Your task to perform on an android device: Open the Play Movies app and select the watchlist tab. Image 0: 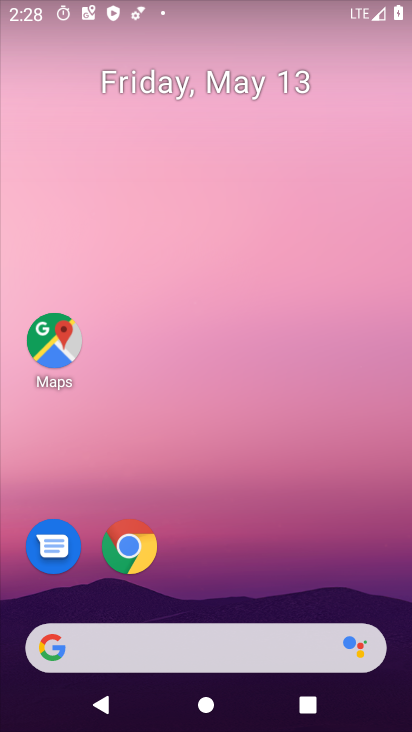
Step 0: drag from (279, 570) to (289, 3)
Your task to perform on an android device: Open the Play Movies app and select the watchlist tab. Image 1: 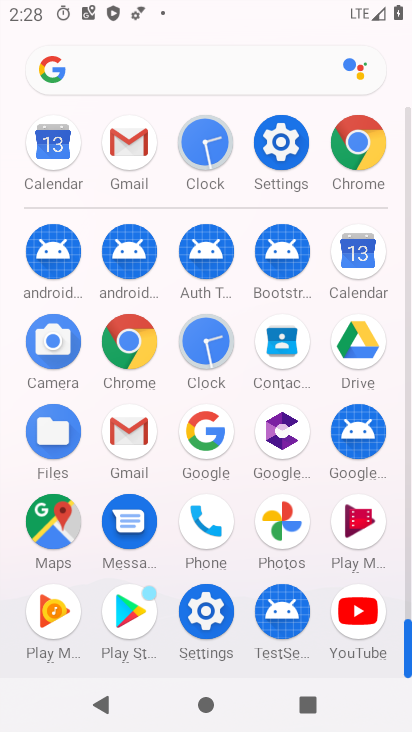
Step 1: drag from (266, 420) to (266, 233)
Your task to perform on an android device: Open the Play Movies app and select the watchlist tab. Image 2: 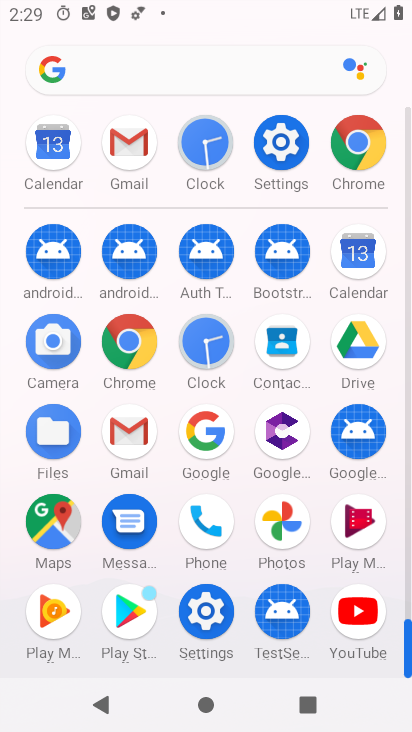
Step 2: drag from (152, 519) to (178, 123)
Your task to perform on an android device: Open the Play Movies app and select the watchlist tab. Image 3: 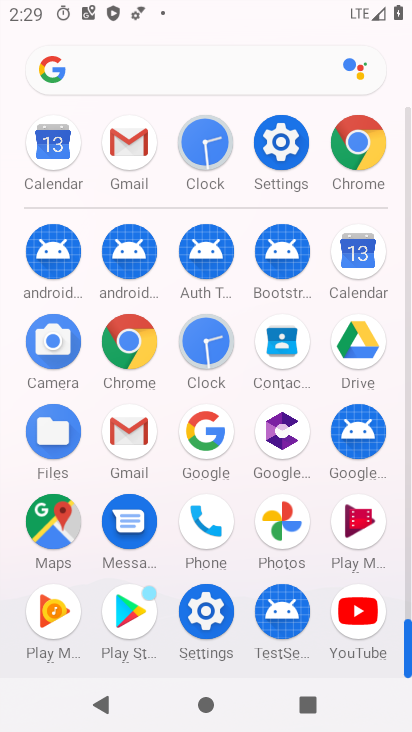
Step 3: click (365, 524)
Your task to perform on an android device: Open the Play Movies app and select the watchlist tab. Image 4: 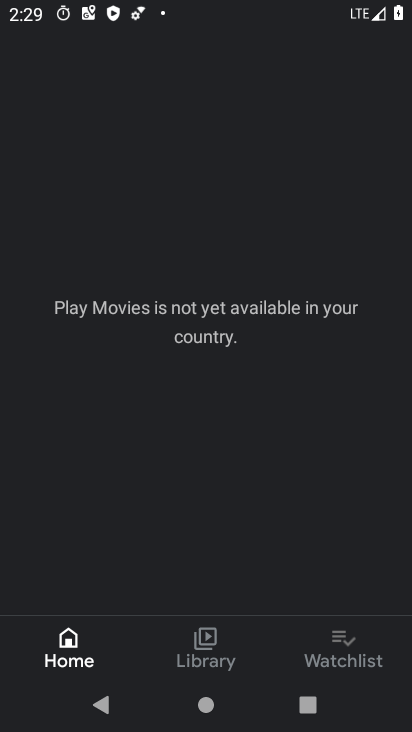
Step 4: click (359, 643)
Your task to perform on an android device: Open the Play Movies app and select the watchlist tab. Image 5: 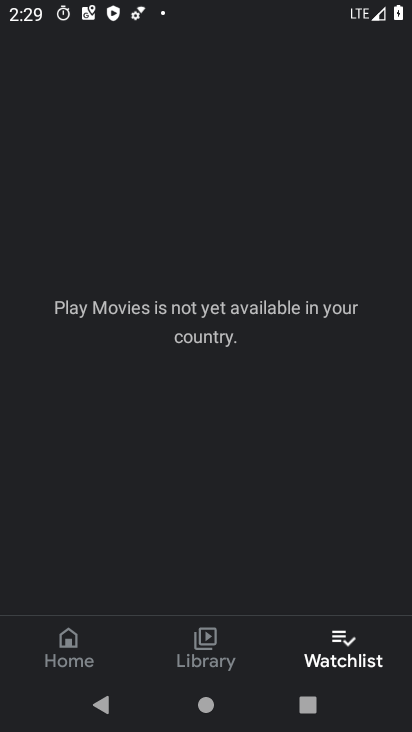
Step 5: task complete